Your task to perform on an android device: Go to network settings Image 0: 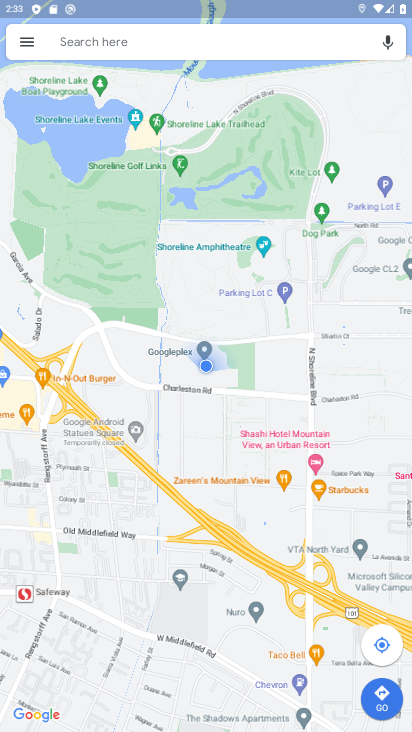
Step 0: press back button
Your task to perform on an android device: Go to network settings Image 1: 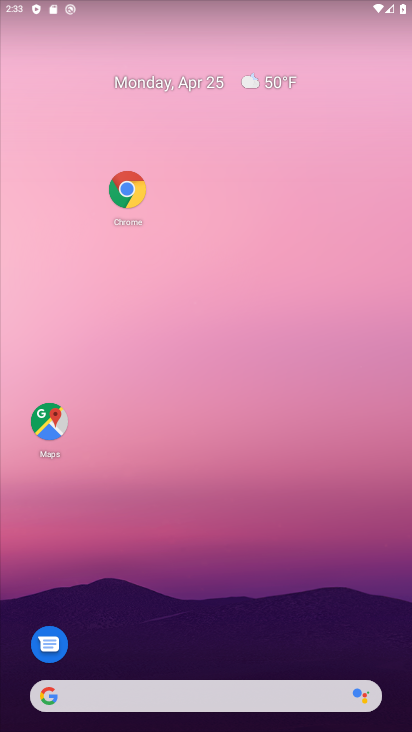
Step 1: drag from (177, 548) to (230, 140)
Your task to perform on an android device: Go to network settings Image 2: 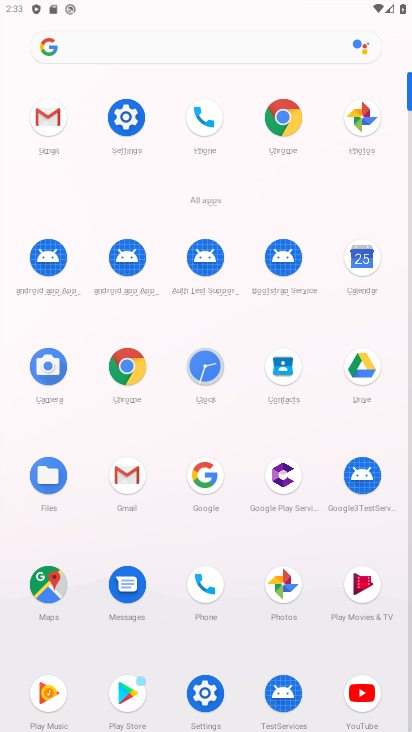
Step 2: click (214, 701)
Your task to perform on an android device: Go to network settings Image 3: 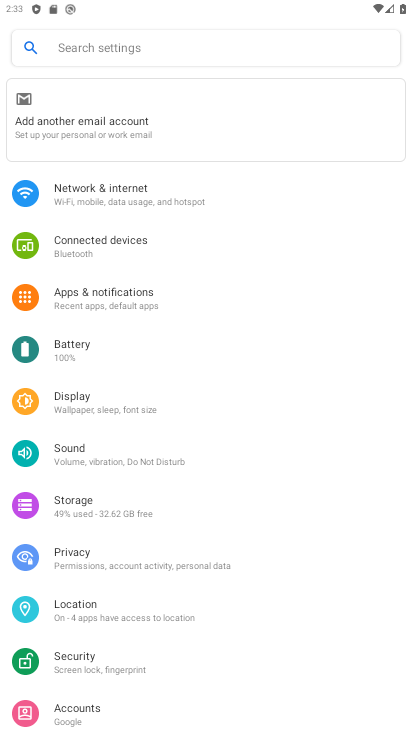
Step 3: click (73, 199)
Your task to perform on an android device: Go to network settings Image 4: 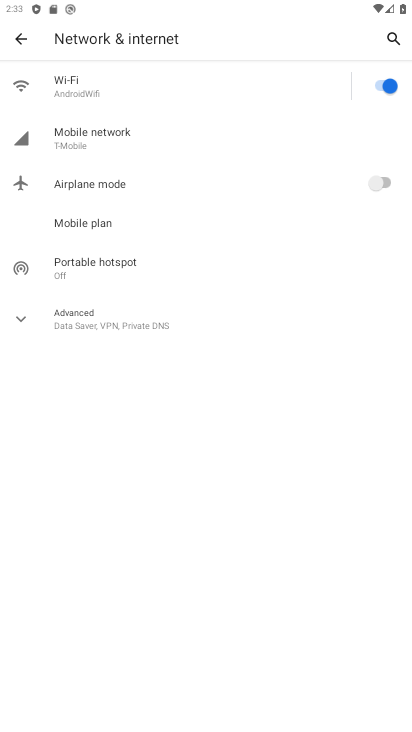
Step 4: task complete